Your task to perform on an android device: Open maps Image 0: 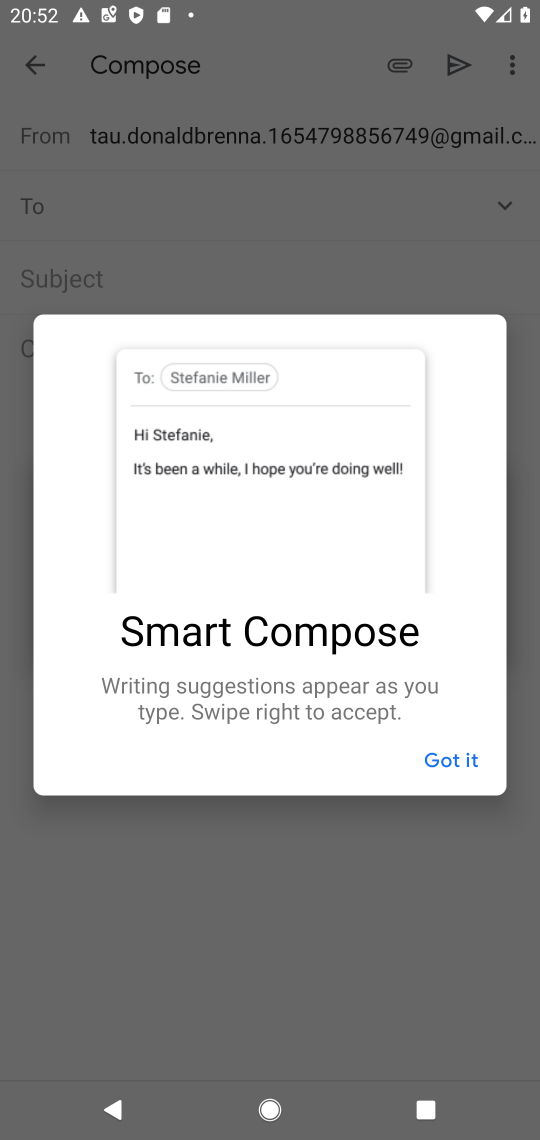
Step 0: press home button
Your task to perform on an android device: Open maps Image 1: 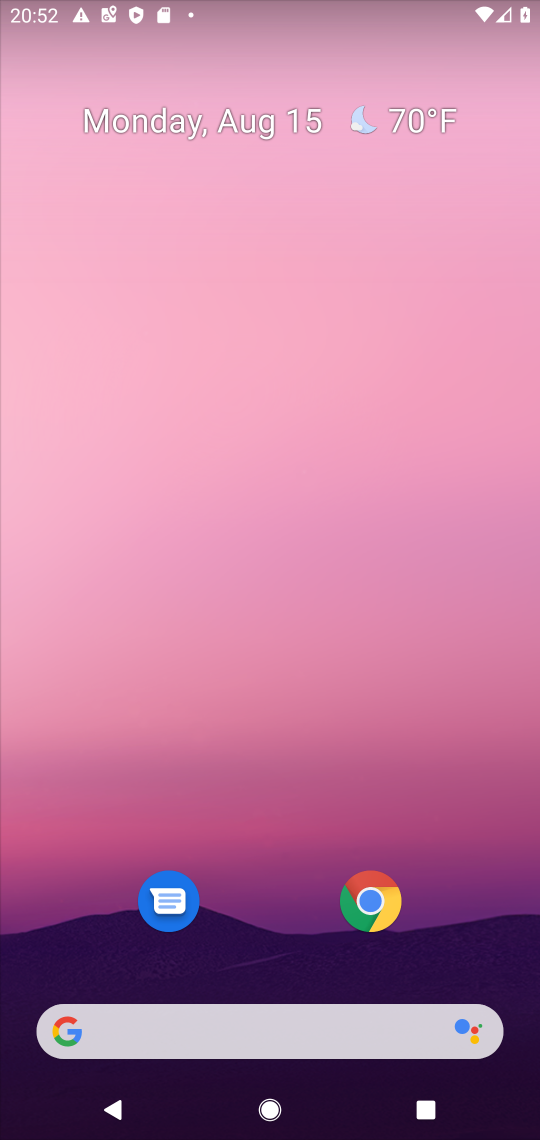
Step 1: drag from (270, 855) to (309, 64)
Your task to perform on an android device: Open maps Image 2: 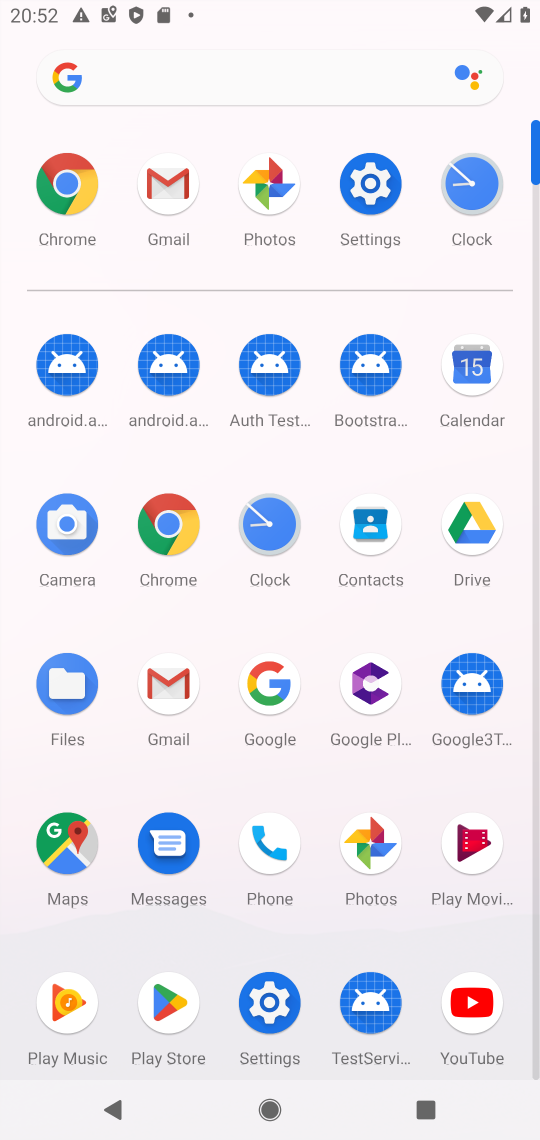
Step 2: click (51, 847)
Your task to perform on an android device: Open maps Image 3: 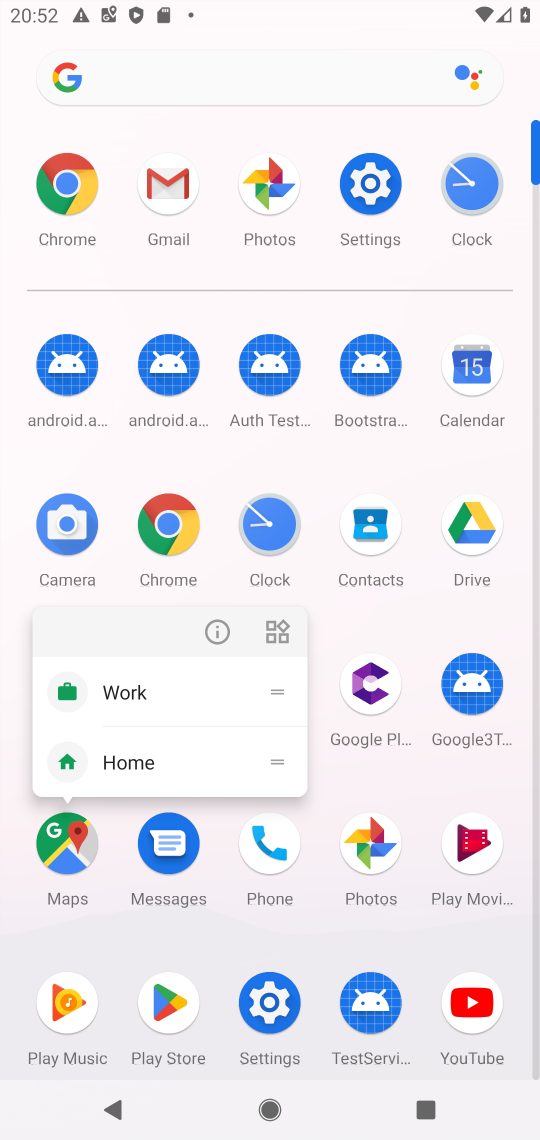
Step 3: click (57, 848)
Your task to perform on an android device: Open maps Image 4: 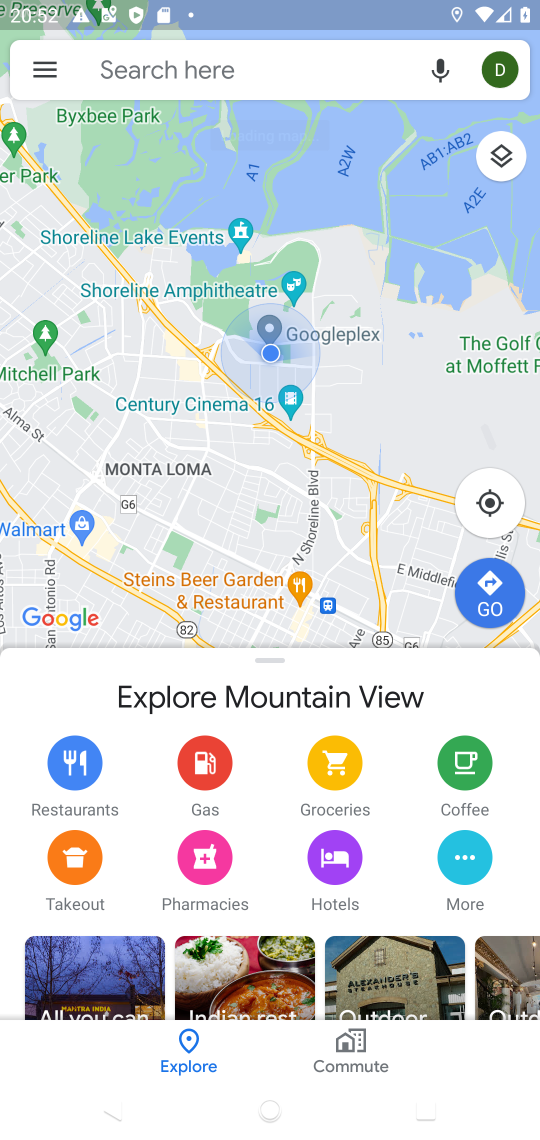
Step 4: task complete